Your task to perform on an android device: Go to wifi settings Image 0: 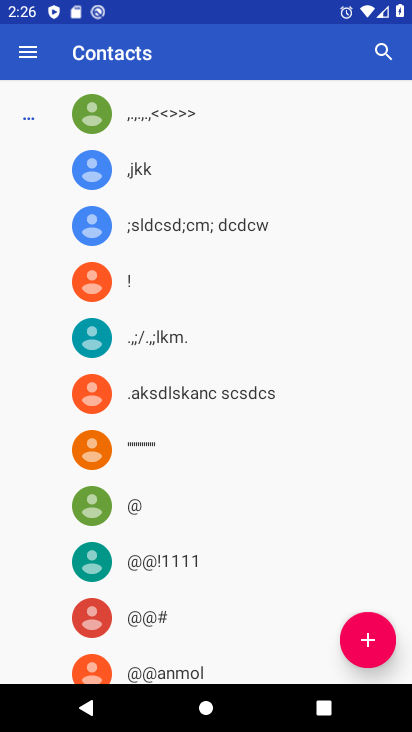
Step 0: press home button
Your task to perform on an android device: Go to wifi settings Image 1: 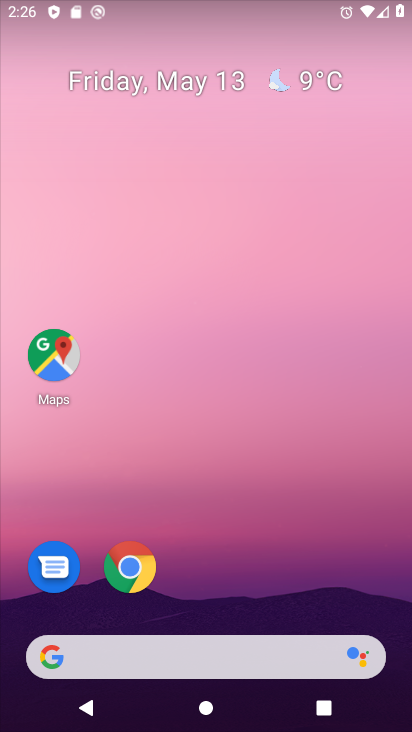
Step 1: drag from (227, 563) to (292, 57)
Your task to perform on an android device: Go to wifi settings Image 2: 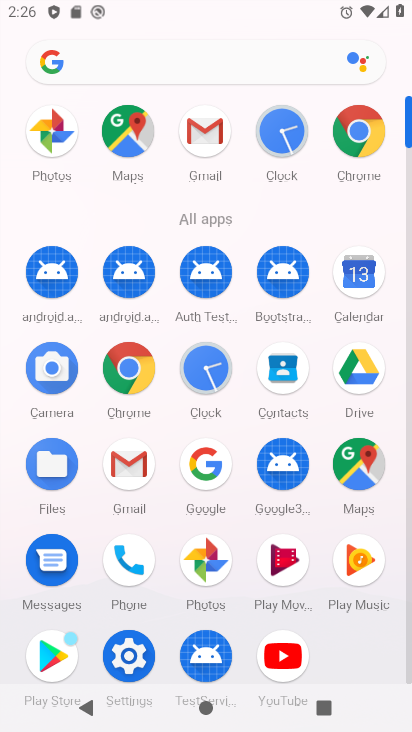
Step 2: click (126, 649)
Your task to perform on an android device: Go to wifi settings Image 3: 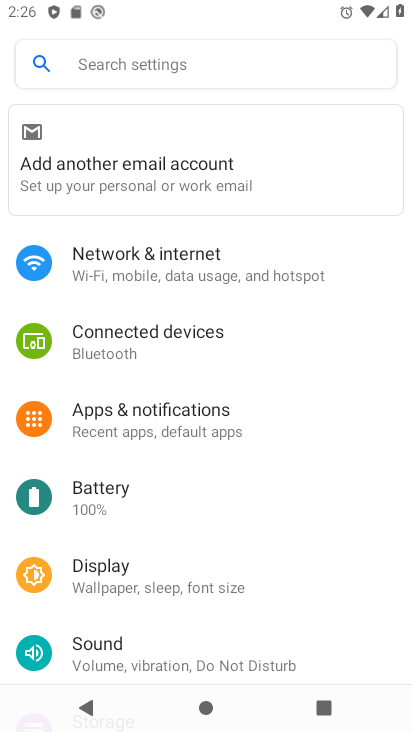
Step 3: click (173, 282)
Your task to perform on an android device: Go to wifi settings Image 4: 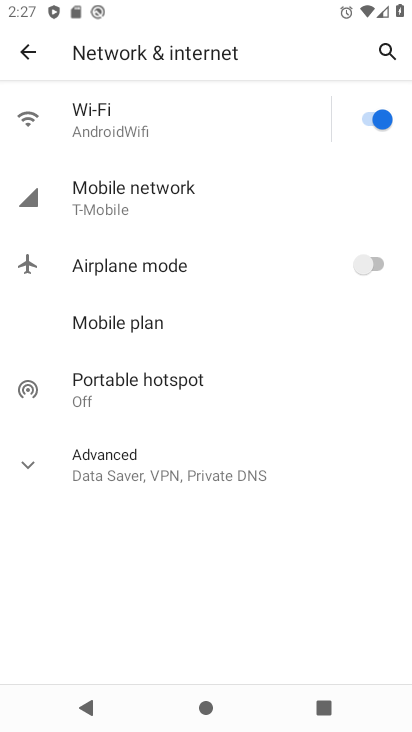
Step 4: click (103, 136)
Your task to perform on an android device: Go to wifi settings Image 5: 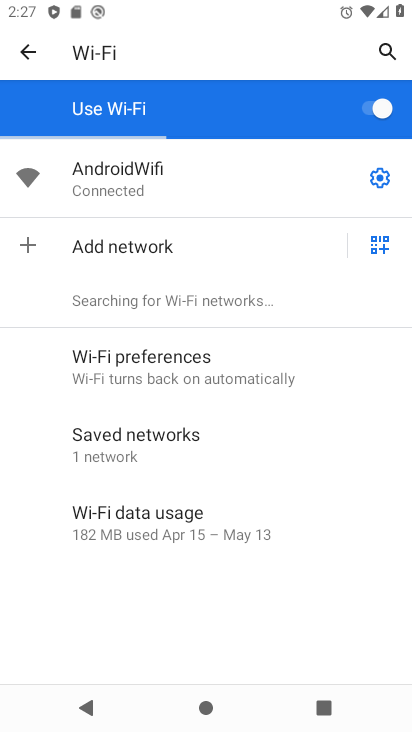
Step 5: task complete